Your task to perform on an android device: turn off location history Image 0: 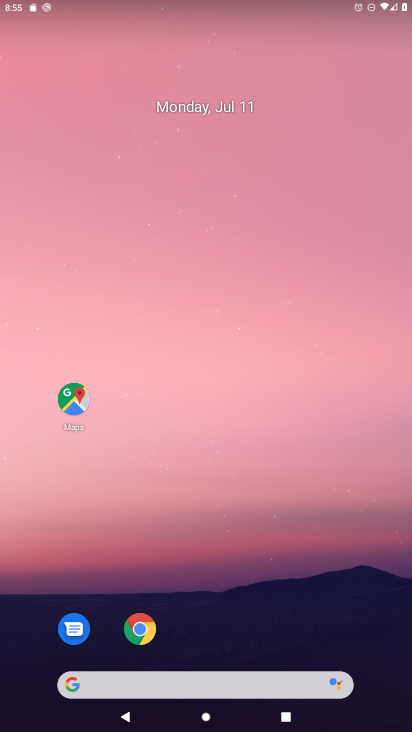
Step 0: drag from (216, 633) to (297, 73)
Your task to perform on an android device: turn off location history Image 1: 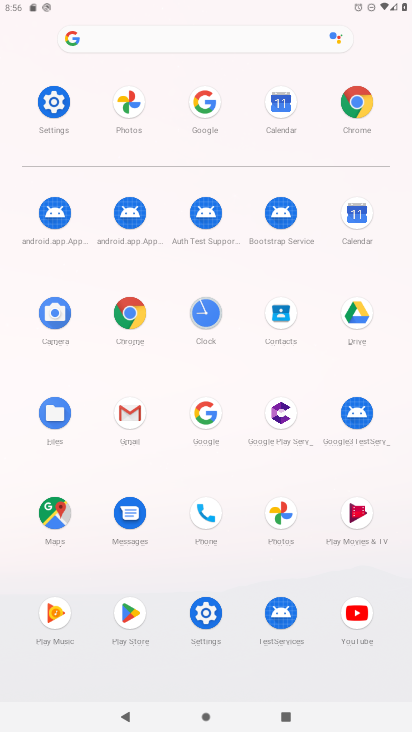
Step 1: click (53, 105)
Your task to perform on an android device: turn off location history Image 2: 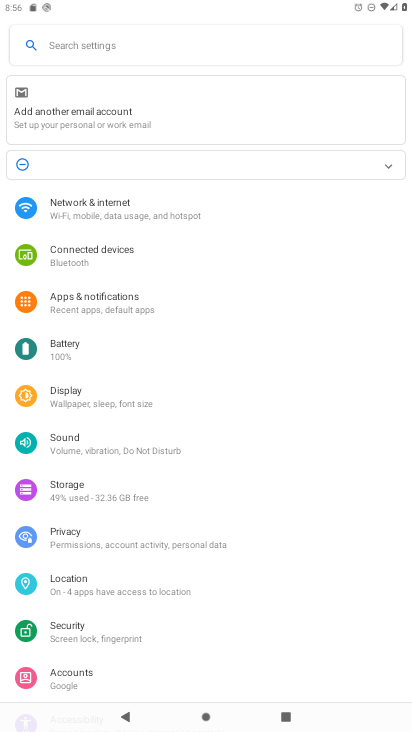
Step 2: click (106, 576)
Your task to perform on an android device: turn off location history Image 3: 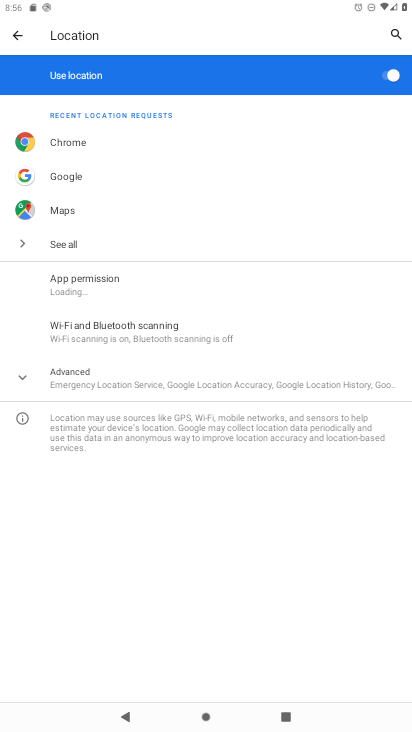
Step 3: click (70, 383)
Your task to perform on an android device: turn off location history Image 4: 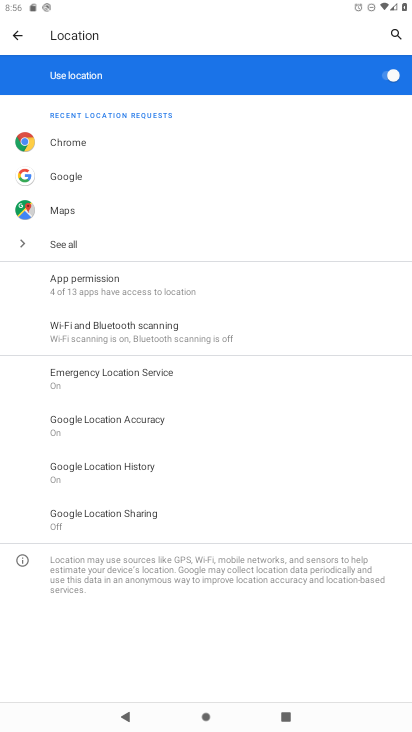
Step 4: click (126, 472)
Your task to perform on an android device: turn off location history Image 5: 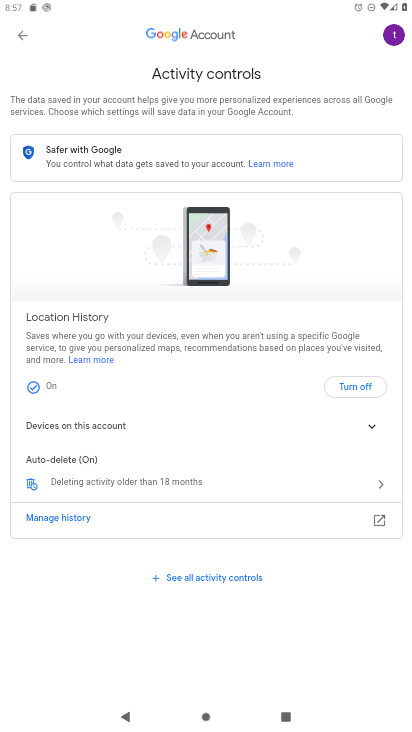
Step 5: click (349, 389)
Your task to perform on an android device: turn off location history Image 6: 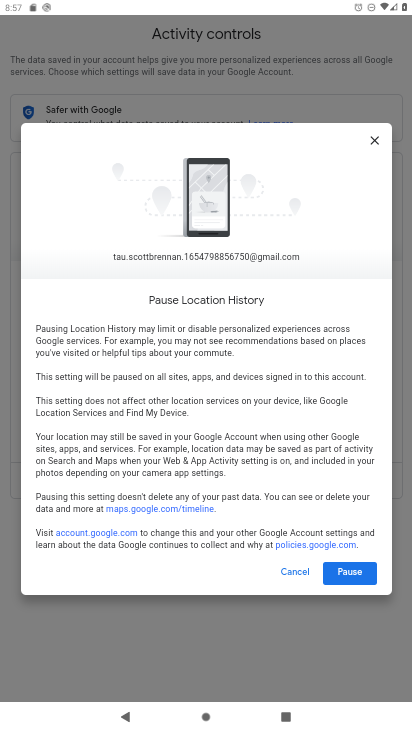
Step 6: click (345, 572)
Your task to perform on an android device: turn off location history Image 7: 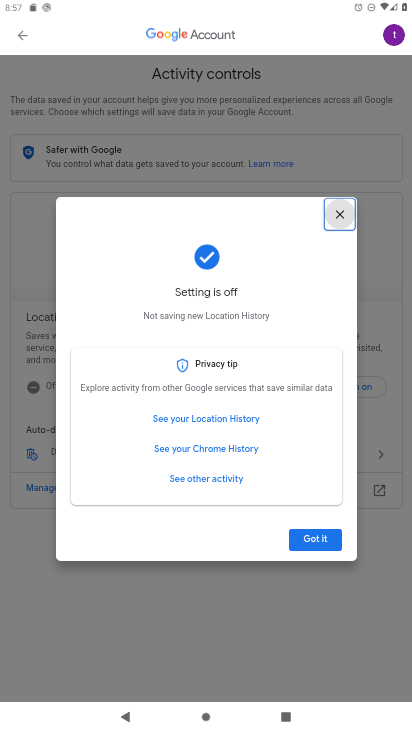
Step 7: click (318, 538)
Your task to perform on an android device: turn off location history Image 8: 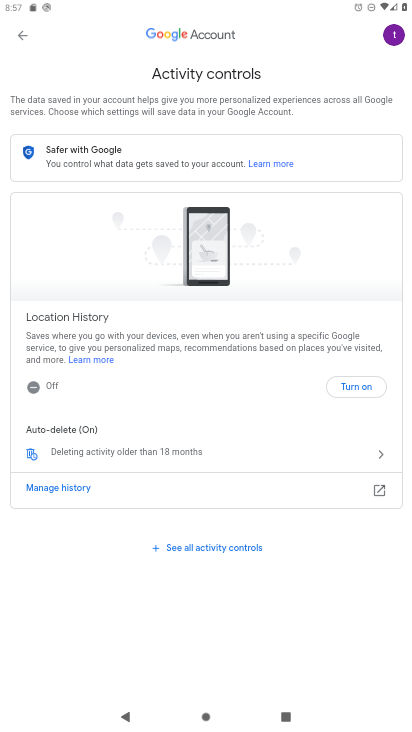
Step 8: task complete